Your task to perform on an android device: turn off notifications in google photos Image 0: 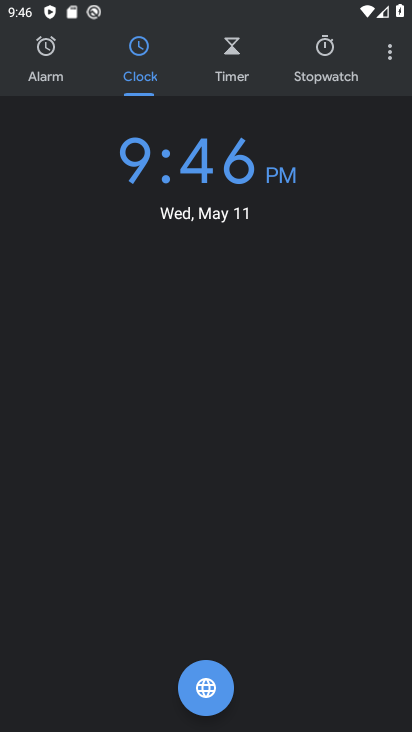
Step 0: press back button
Your task to perform on an android device: turn off notifications in google photos Image 1: 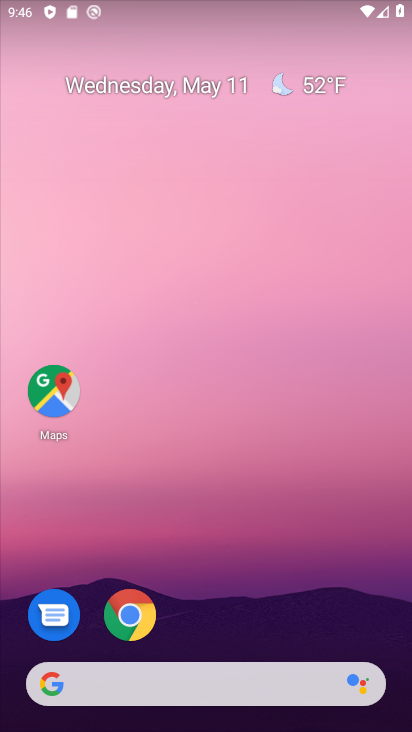
Step 1: drag from (283, 600) to (272, 21)
Your task to perform on an android device: turn off notifications in google photos Image 2: 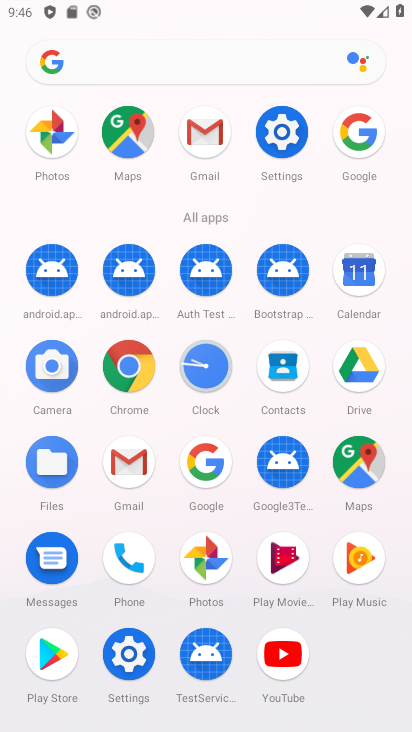
Step 2: click (50, 131)
Your task to perform on an android device: turn off notifications in google photos Image 3: 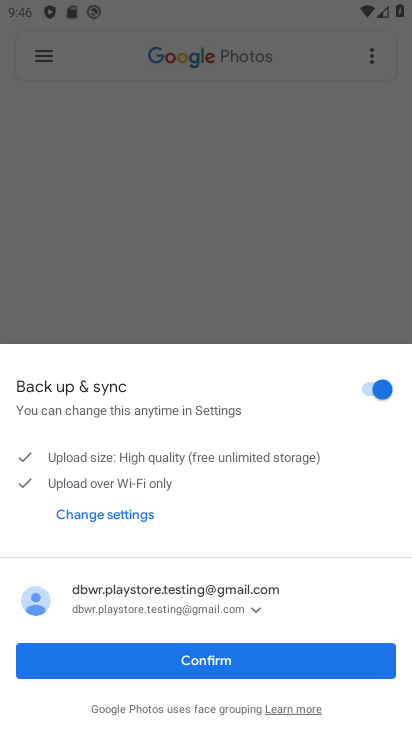
Step 3: click (210, 664)
Your task to perform on an android device: turn off notifications in google photos Image 4: 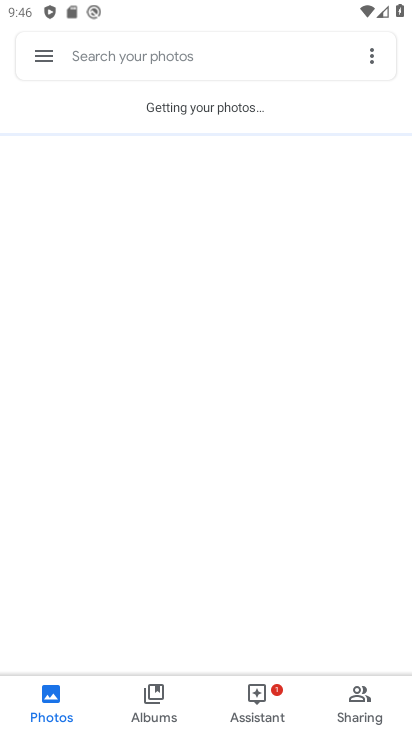
Step 4: click (50, 50)
Your task to perform on an android device: turn off notifications in google photos Image 5: 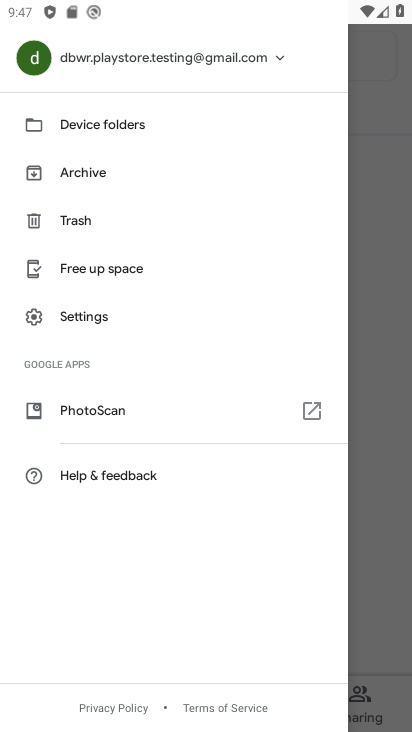
Step 5: click (61, 320)
Your task to perform on an android device: turn off notifications in google photos Image 6: 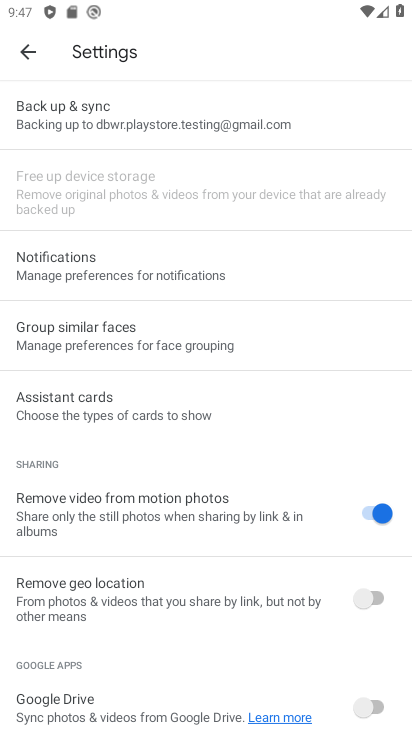
Step 6: click (64, 265)
Your task to perform on an android device: turn off notifications in google photos Image 7: 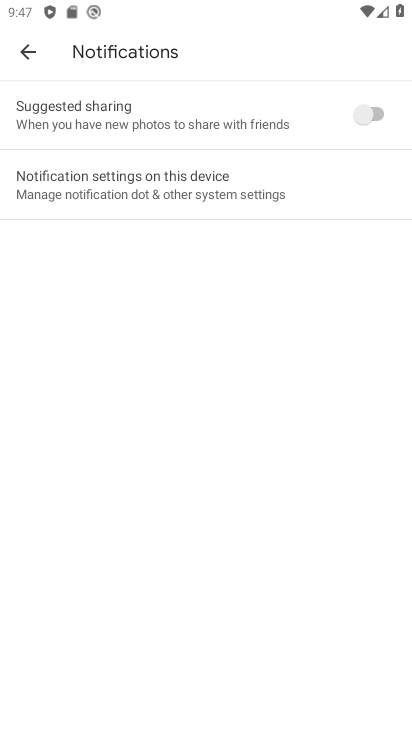
Step 7: click (85, 196)
Your task to perform on an android device: turn off notifications in google photos Image 8: 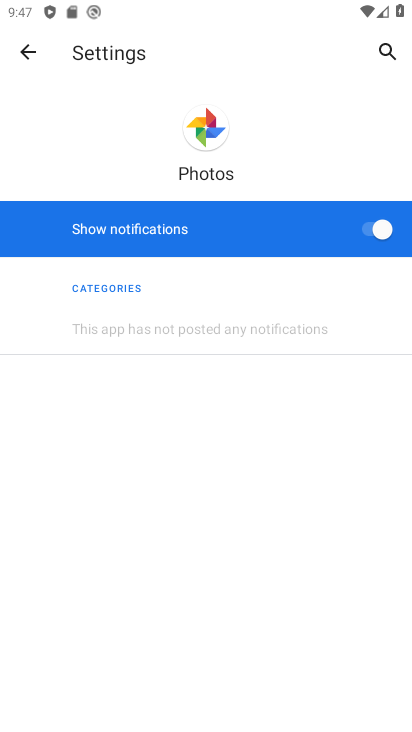
Step 8: click (371, 230)
Your task to perform on an android device: turn off notifications in google photos Image 9: 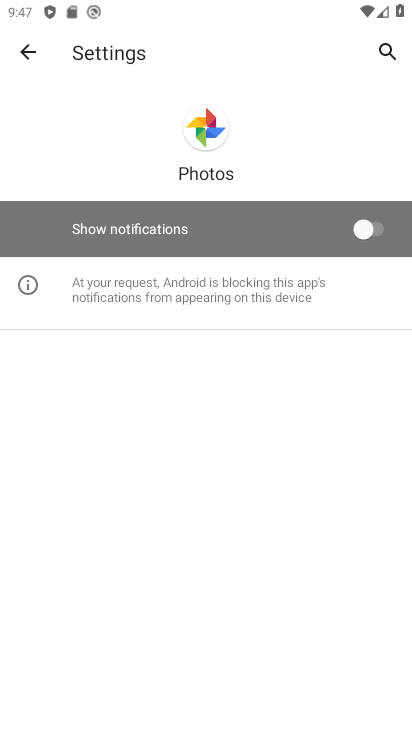
Step 9: task complete